Your task to perform on an android device: open app "Booking.com: Hotels and more" Image 0: 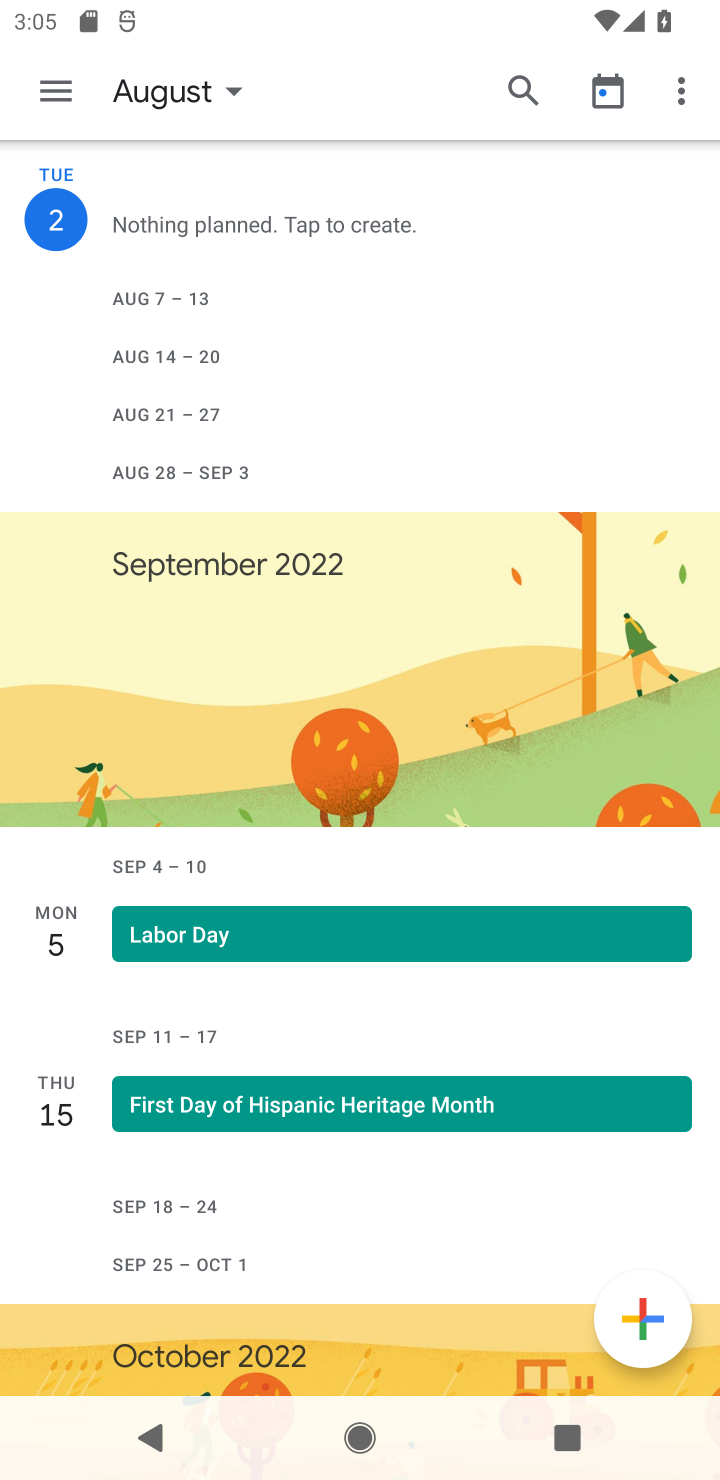
Step 0: press home button
Your task to perform on an android device: open app "Booking.com: Hotels and more" Image 1: 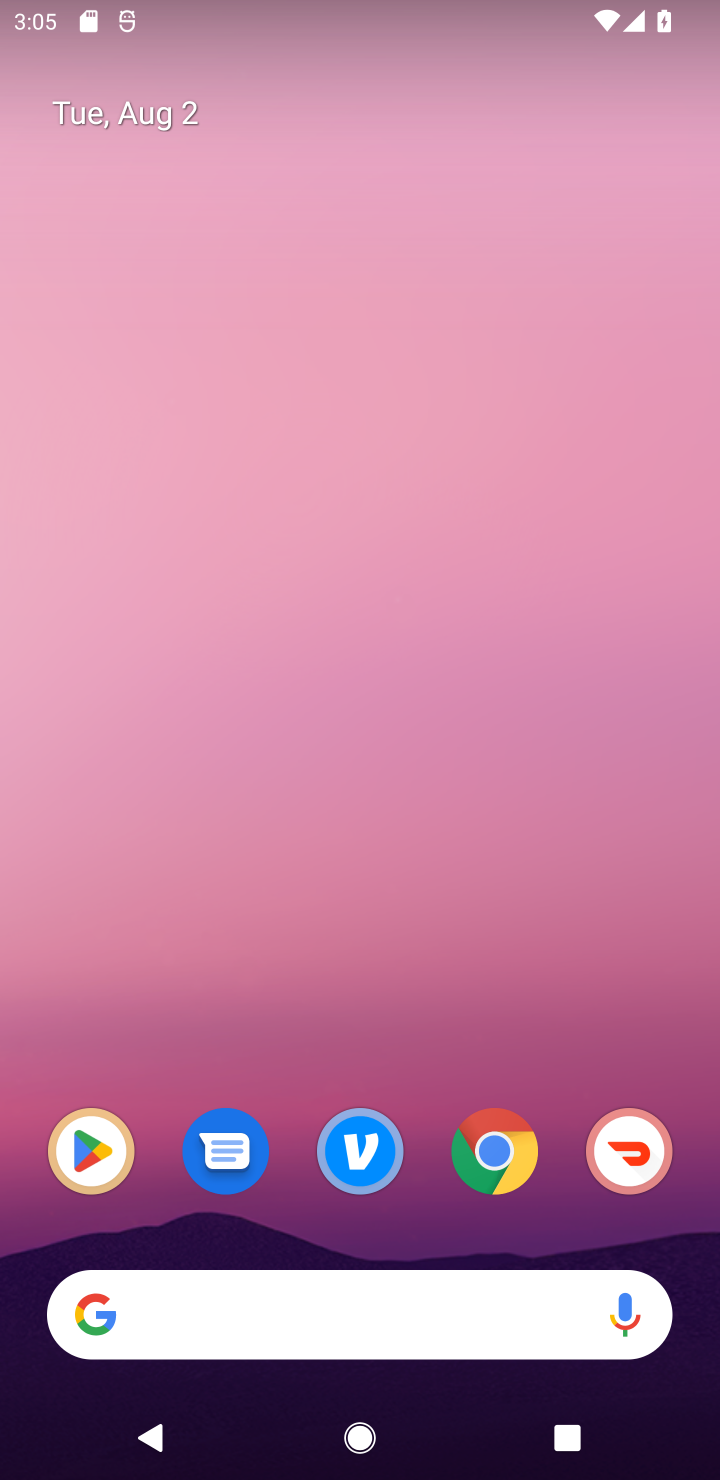
Step 1: task complete